Your task to perform on an android device: install app "LiveIn - Share Your Moment" Image 0: 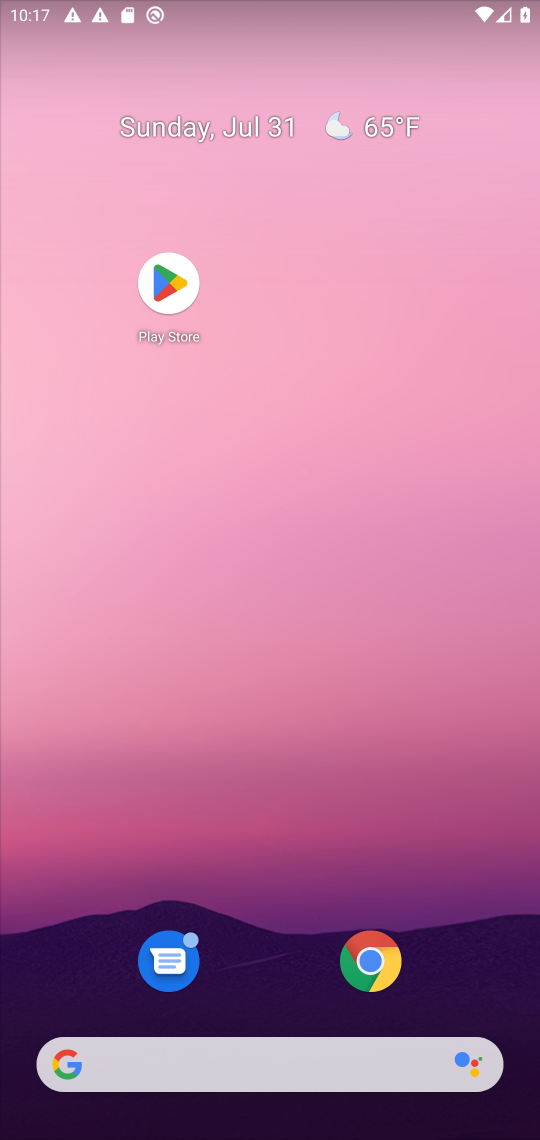
Step 0: click (189, 273)
Your task to perform on an android device: install app "LiveIn - Share Your Moment" Image 1: 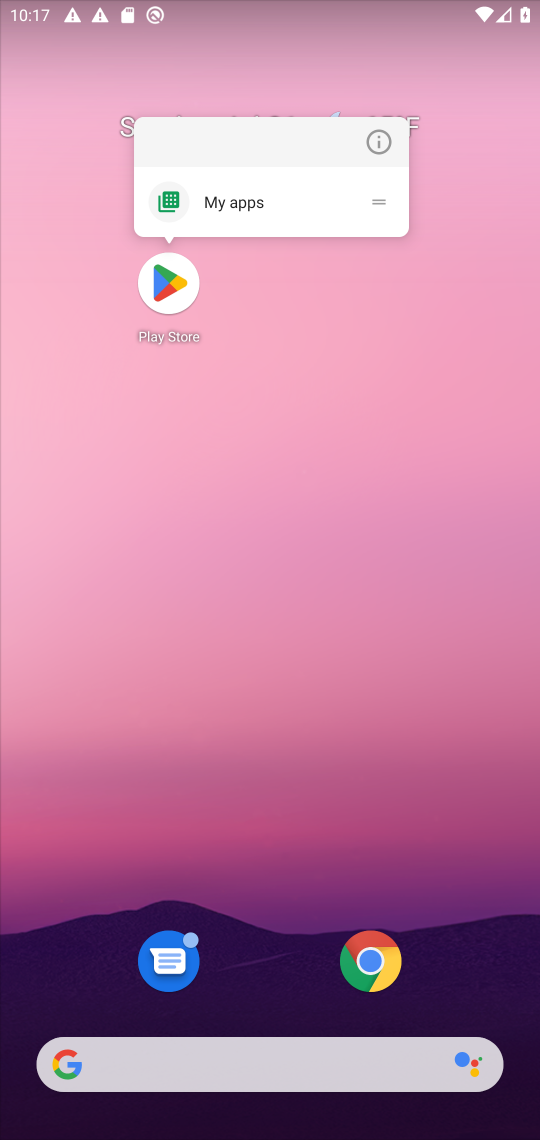
Step 1: click (171, 298)
Your task to perform on an android device: install app "LiveIn - Share Your Moment" Image 2: 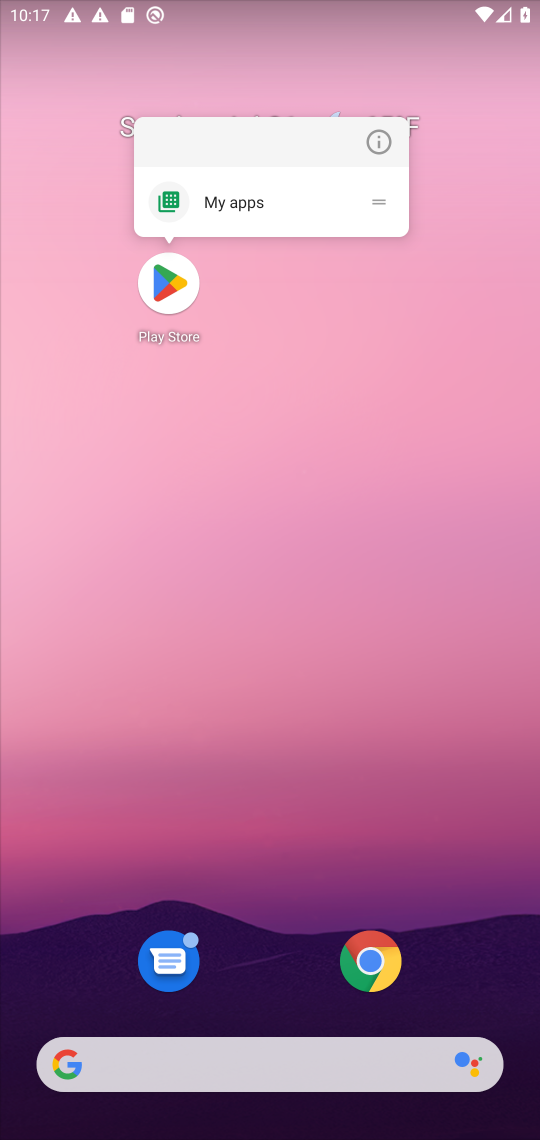
Step 2: click (153, 280)
Your task to perform on an android device: install app "LiveIn - Share Your Moment" Image 3: 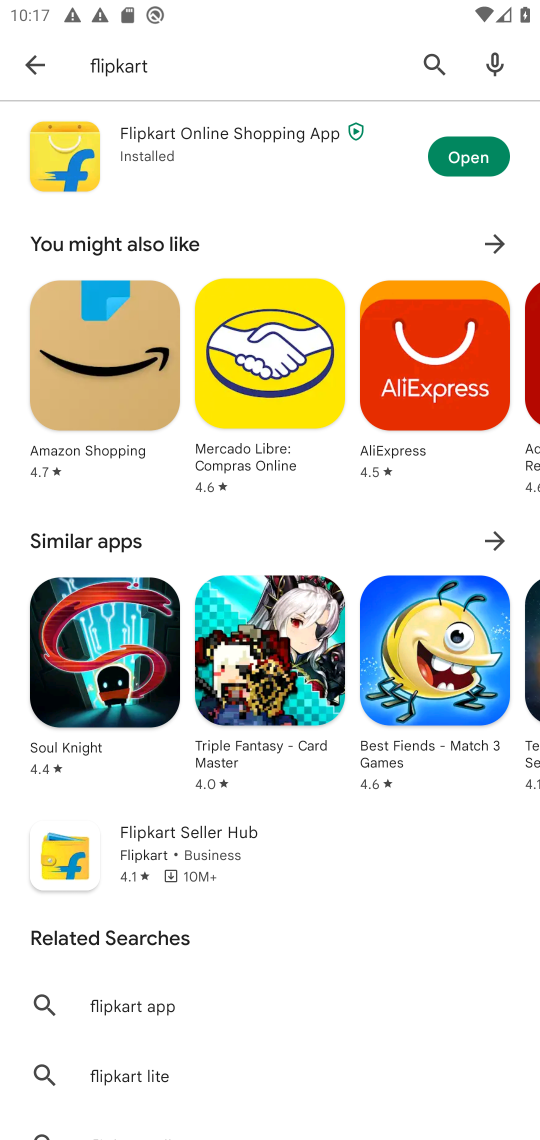
Step 3: click (437, 77)
Your task to perform on an android device: install app "LiveIn - Share Your Moment" Image 4: 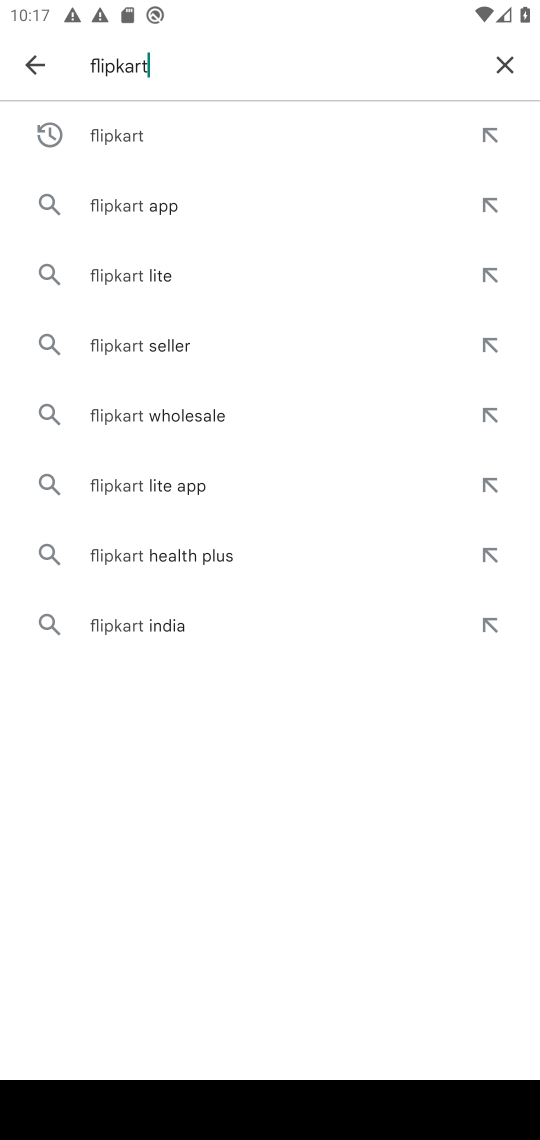
Step 4: click (505, 53)
Your task to perform on an android device: install app "LiveIn - Share Your Moment" Image 5: 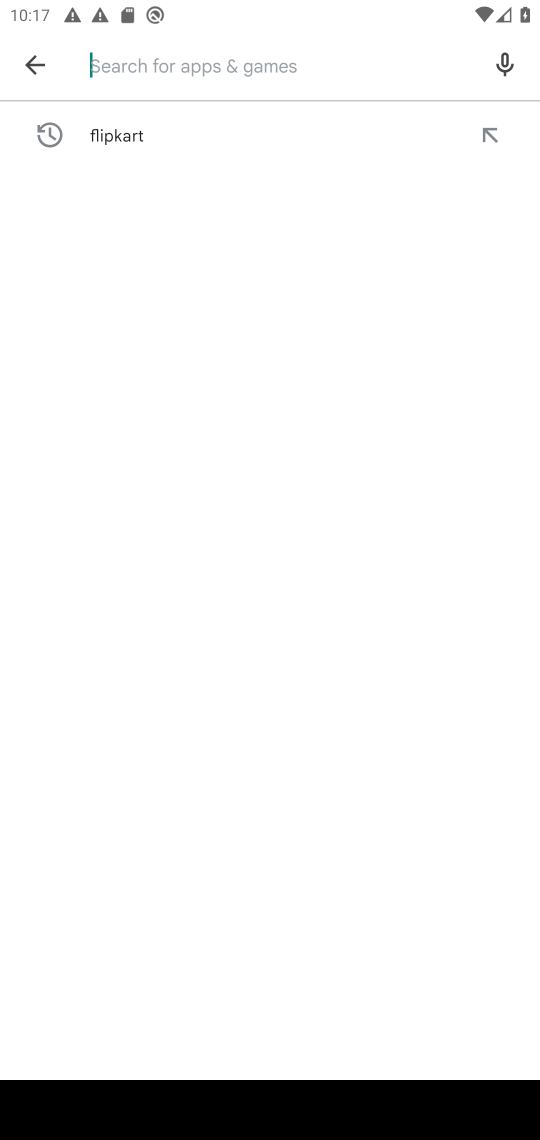
Step 5: type "liveln"
Your task to perform on an android device: install app "LiveIn - Share Your Moment" Image 6: 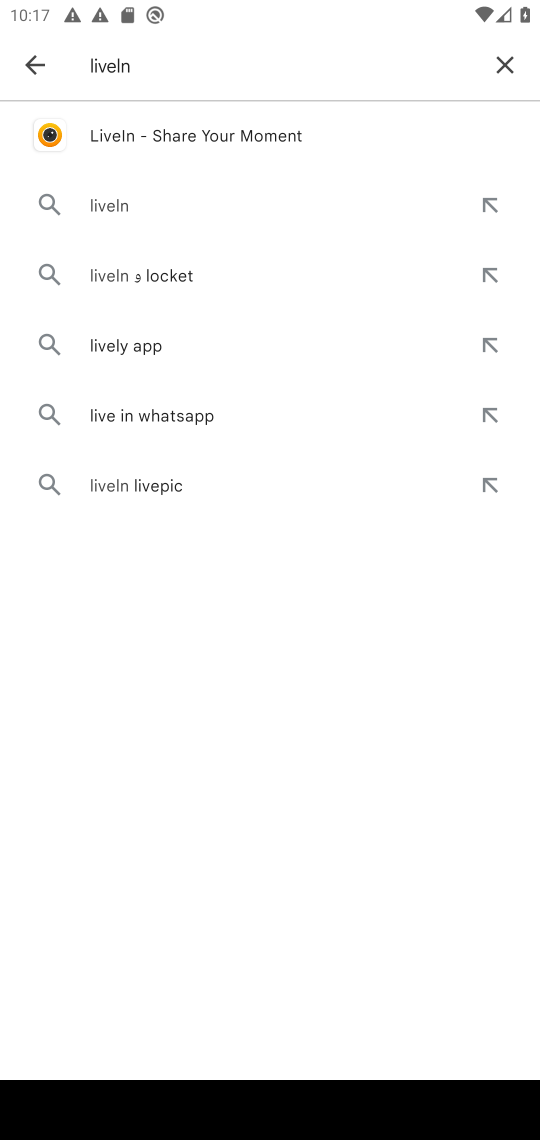
Step 6: click (153, 122)
Your task to perform on an android device: install app "LiveIn - Share Your Moment" Image 7: 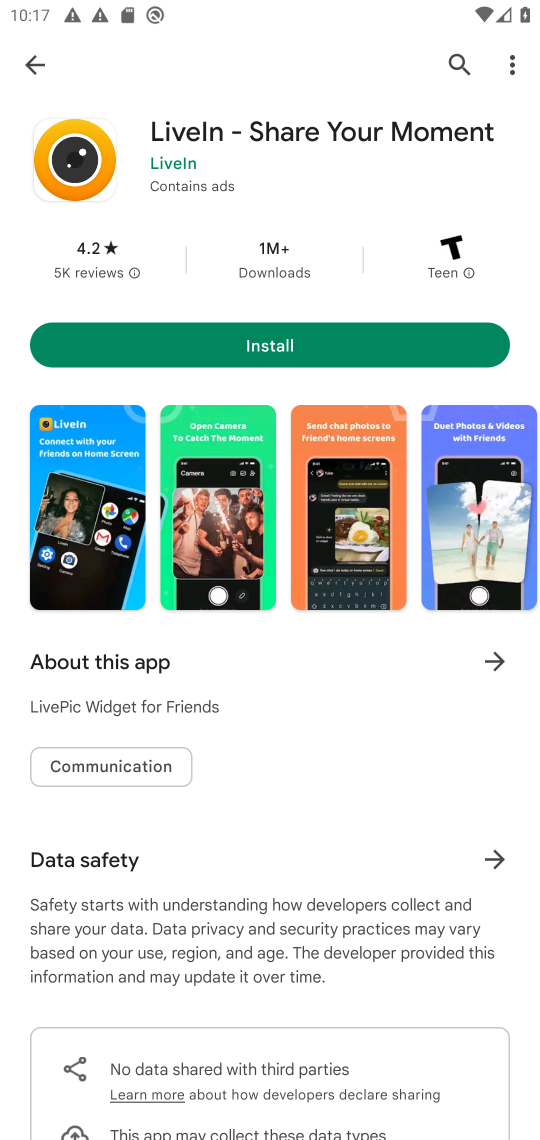
Step 7: click (412, 345)
Your task to perform on an android device: install app "LiveIn - Share Your Moment" Image 8: 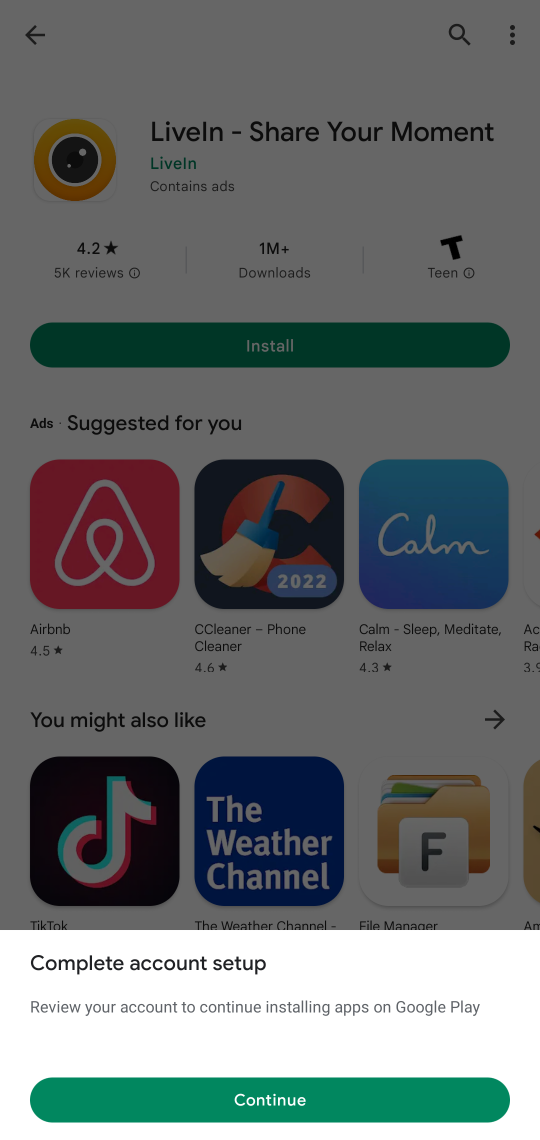
Step 8: click (316, 1103)
Your task to perform on an android device: install app "LiveIn - Share Your Moment" Image 9: 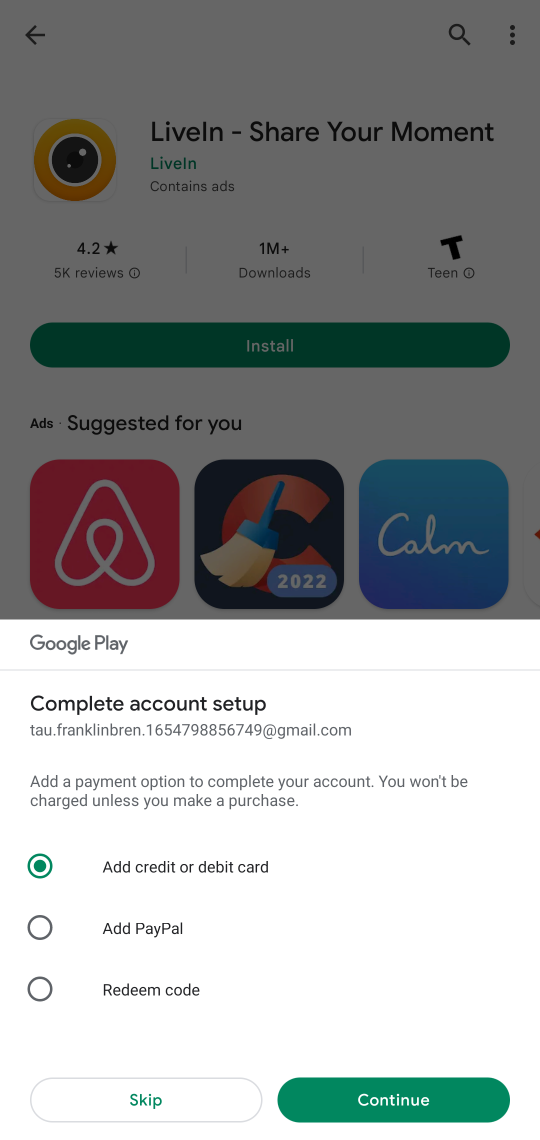
Step 9: click (169, 1109)
Your task to perform on an android device: install app "LiveIn - Share Your Moment" Image 10: 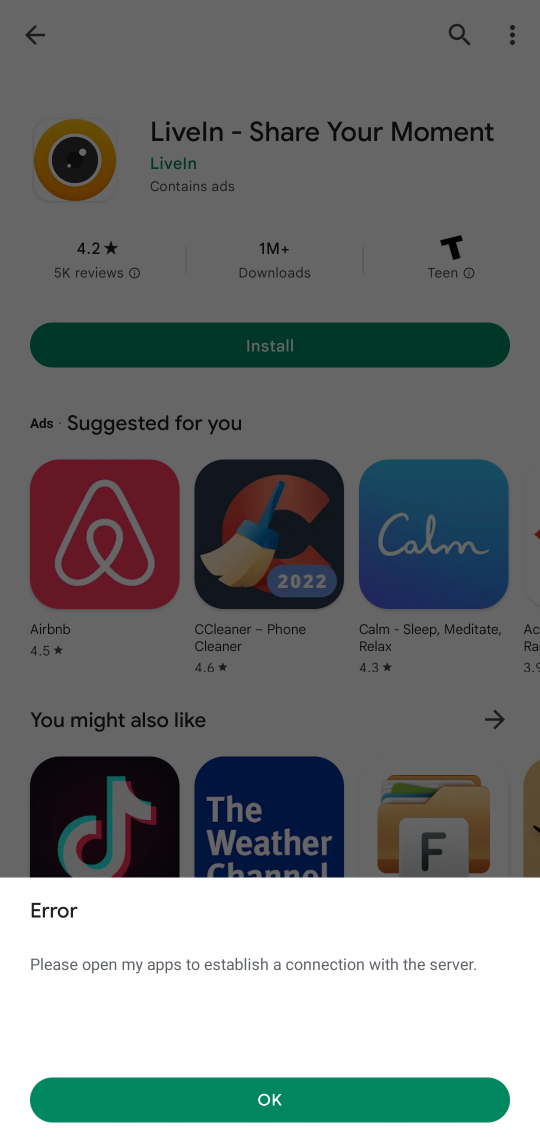
Step 10: click (373, 1088)
Your task to perform on an android device: install app "LiveIn - Share Your Moment" Image 11: 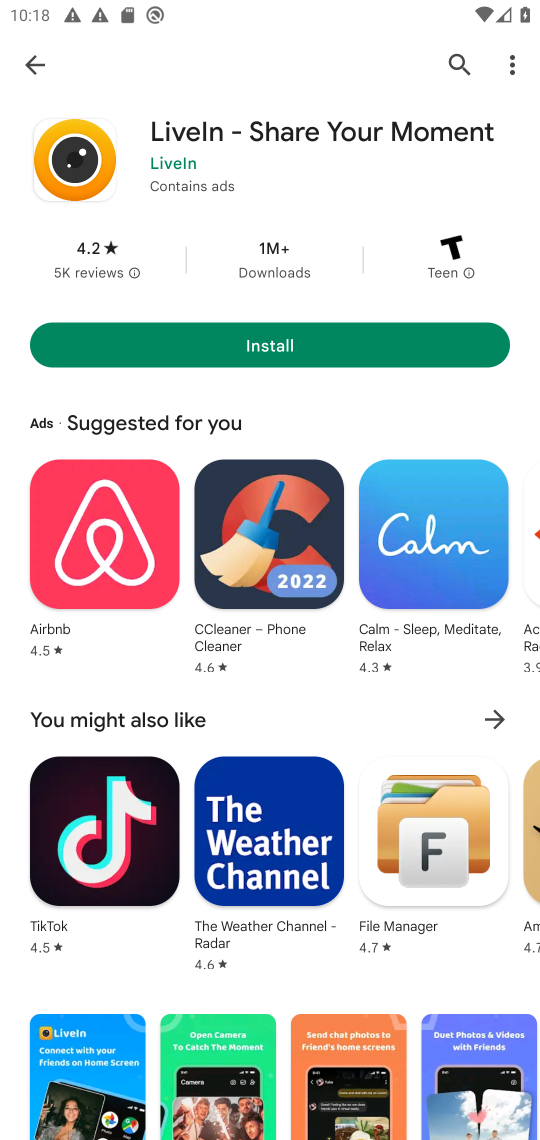
Step 11: task complete